Your task to perform on an android device: turn on showing notifications on the lock screen Image 0: 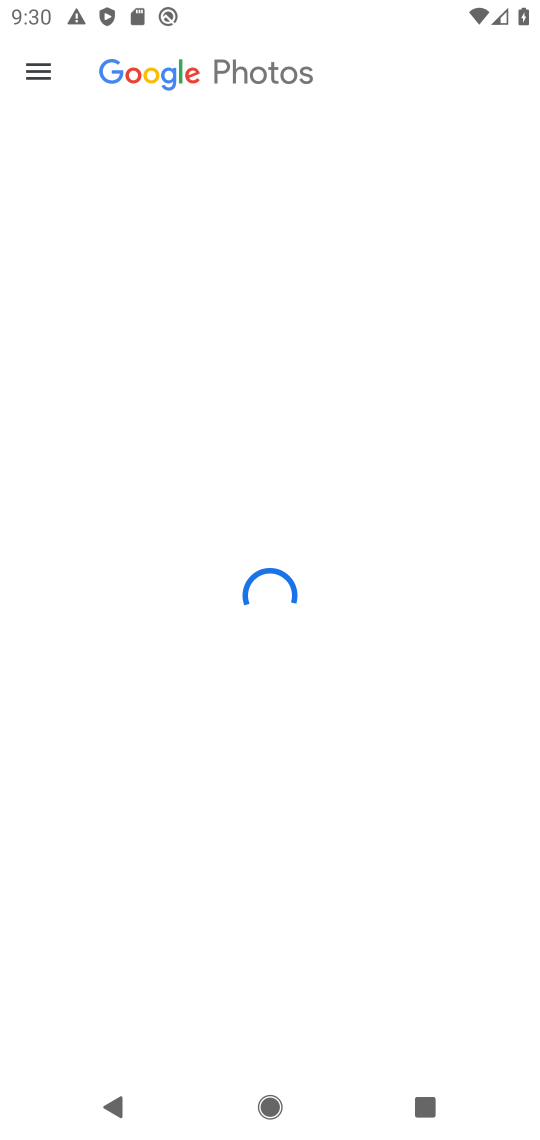
Step 0: press home button
Your task to perform on an android device: turn on showing notifications on the lock screen Image 1: 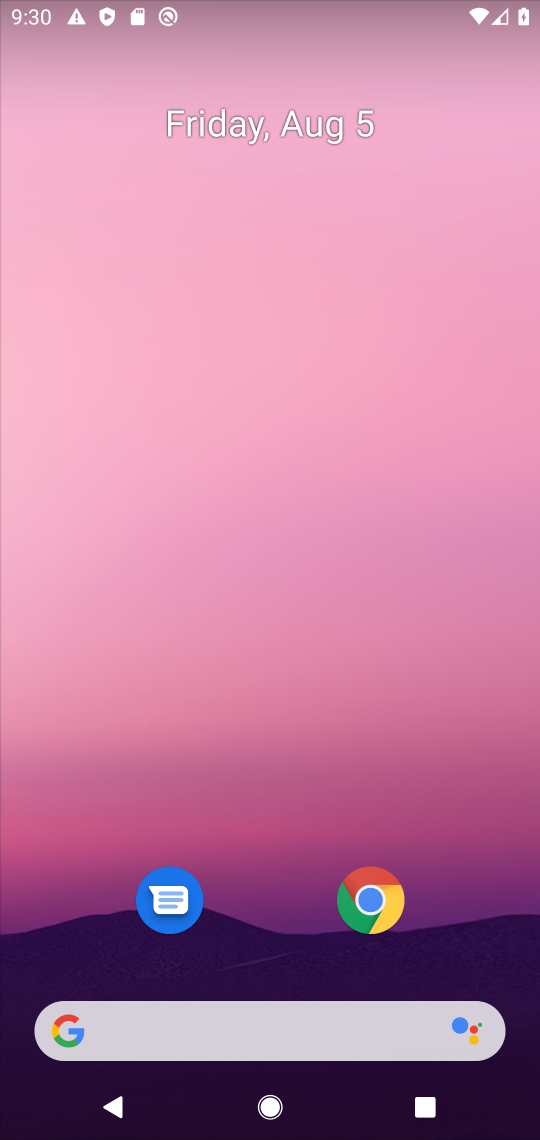
Step 1: drag from (501, 935) to (416, 417)
Your task to perform on an android device: turn on showing notifications on the lock screen Image 2: 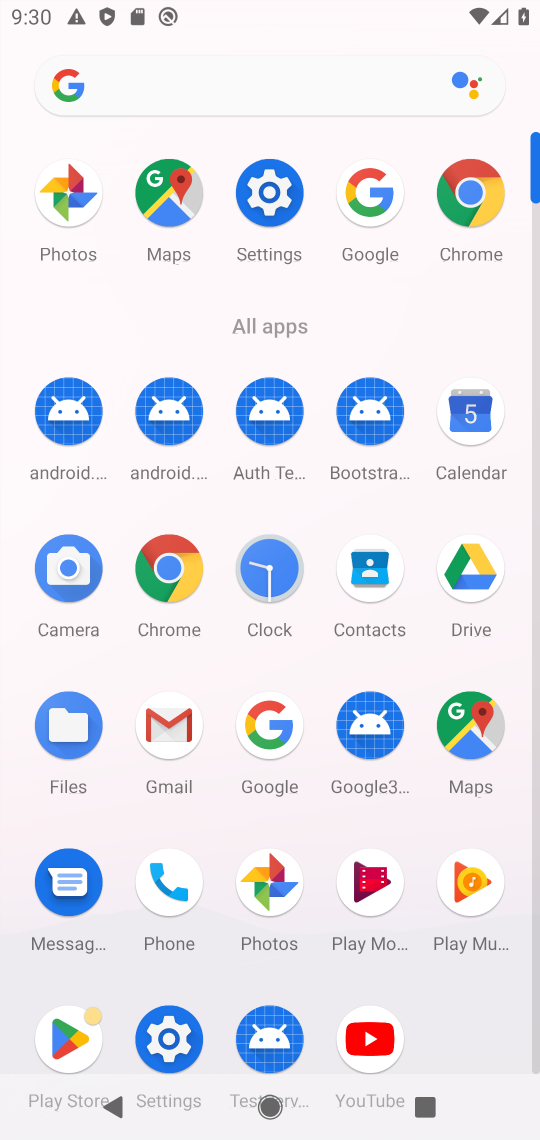
Step 2: click (268, 209)
Your task to perform on an android device: turn on showing notifications on the lock screen Image 3: 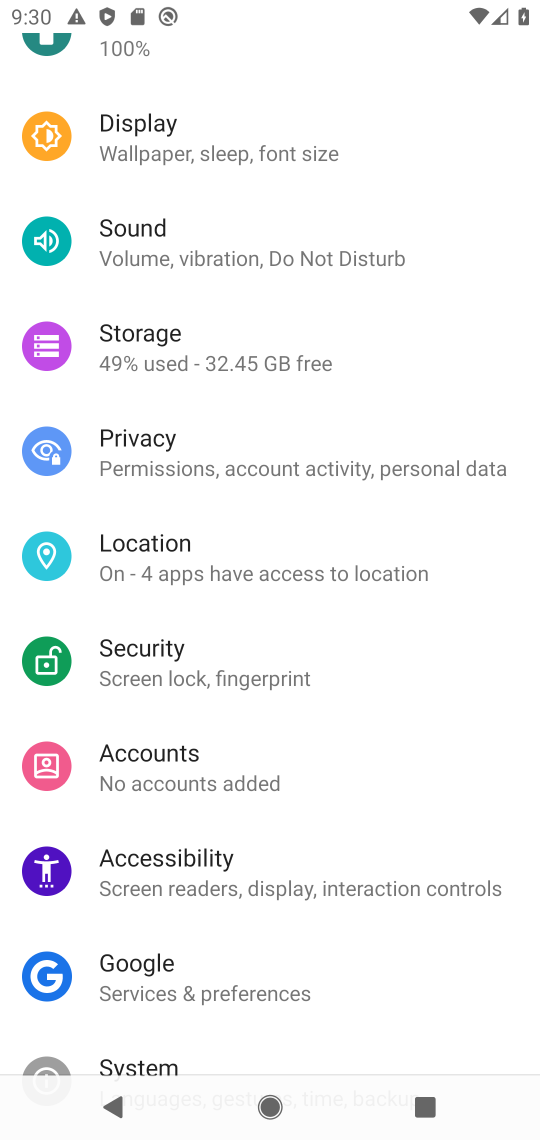
Step 3: drag from (284, 587) to (326, 953)
Your task to perform on an android device: turn on showing notifications on the lock screen Image 4: 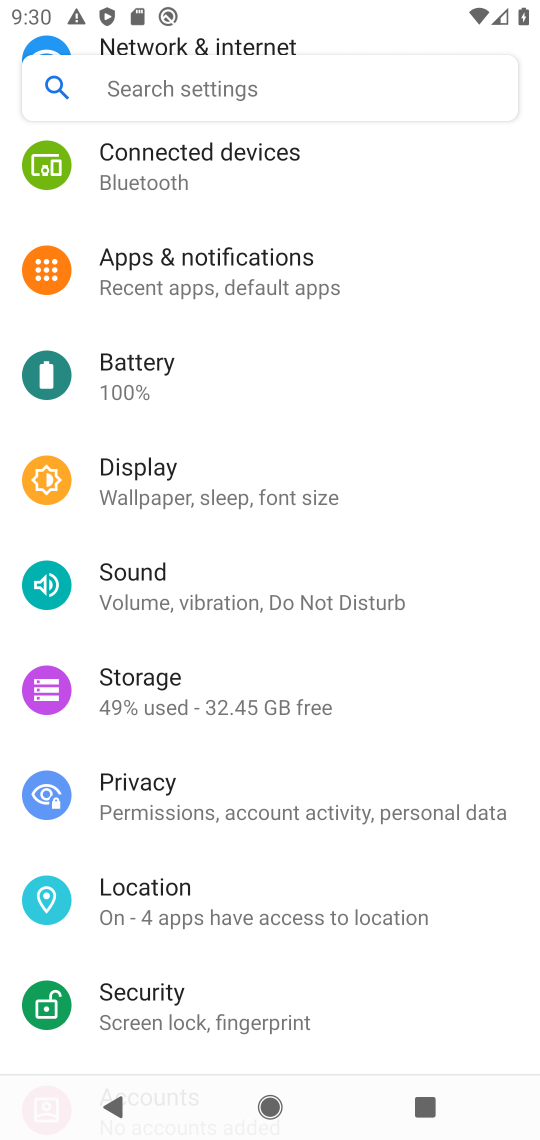
Step 4: click (263, 258)
Your task to perform on an android device: turn on showing notifications on the lock screen Image 5: 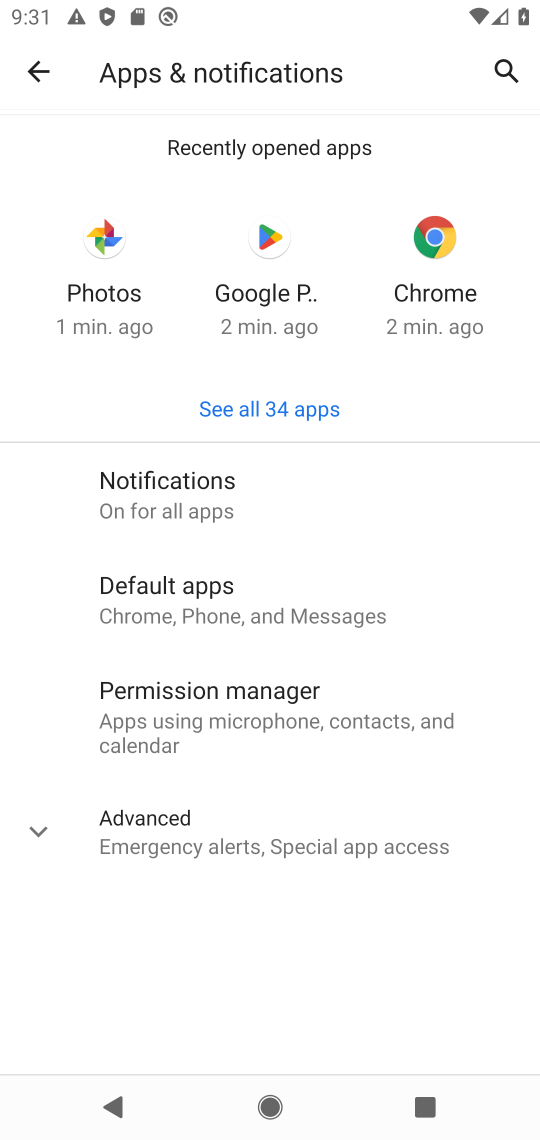
Step 5: click (205, 513)
Your task to perform on an android device: turn on showing notifications on the lock screen Image 6: 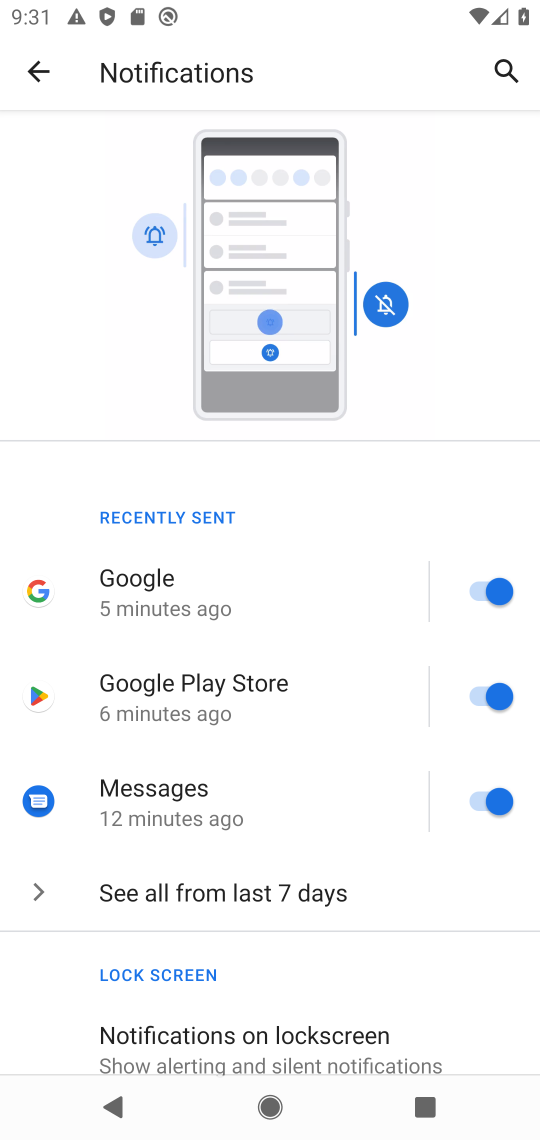
Step 6: click (272, 1048)
Your task to perform on an android device: turn on showing notifications on the lock screen Image 7: 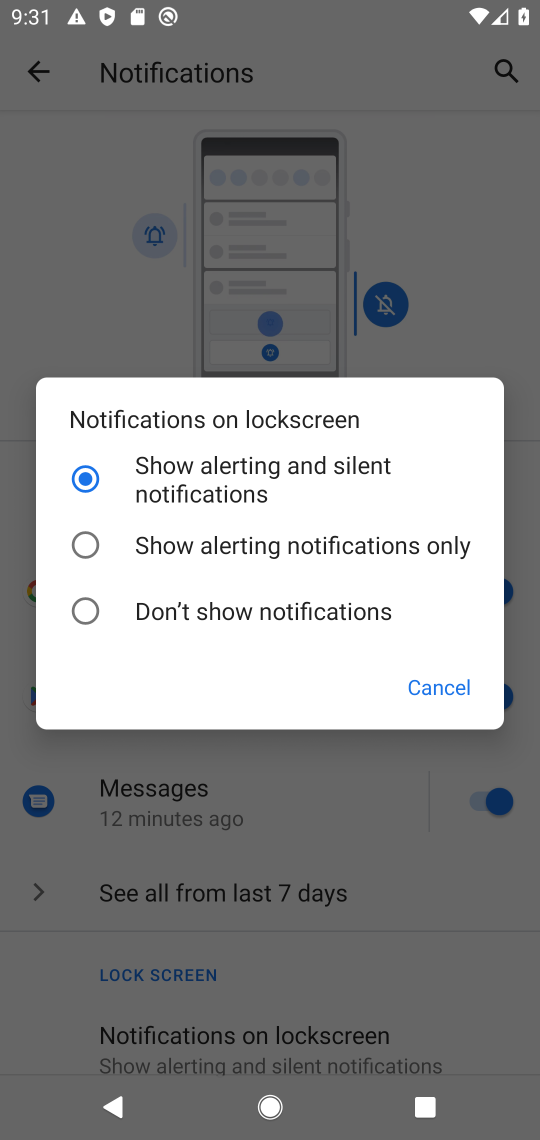
Step 7: task complete